Your task to perform on an android device: toggle show notifications on the lock screen Image 0: 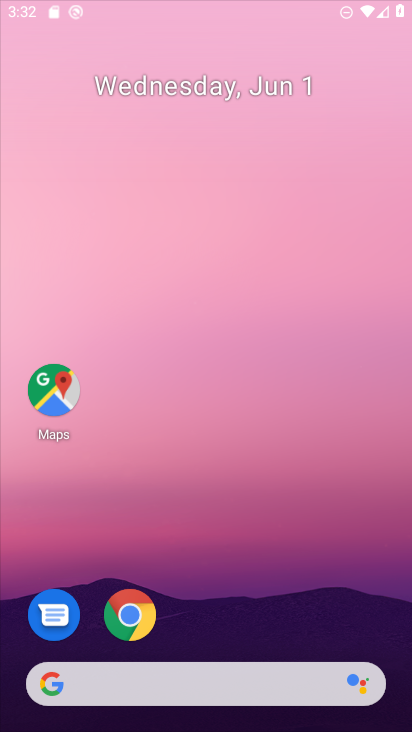
Step 0: press home button
Your task to perform on an android device: toggle show notifications on the lock screen Image 1: 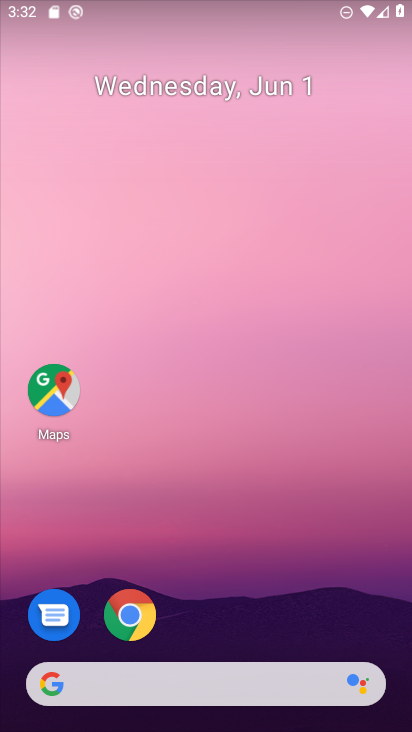
Step 1: drag from (233, 565) to (290, 21)
Your task to perform on an android device: toggle show notifications on the lock screen Image 2: 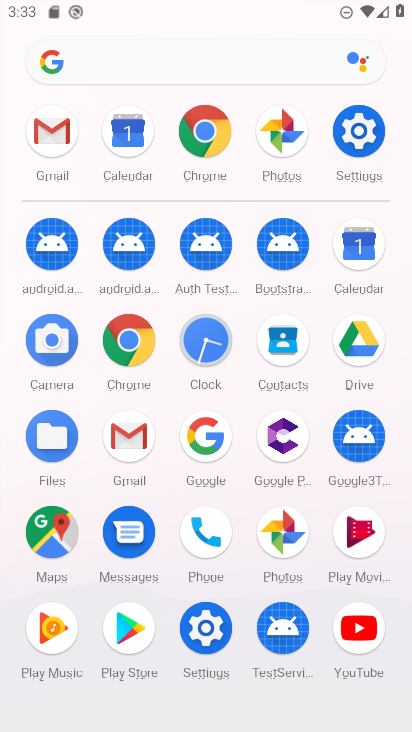
Step 2: click (356, 122)
Your task to perform on an android device: toggle show notifications on the lock screen Image 3: 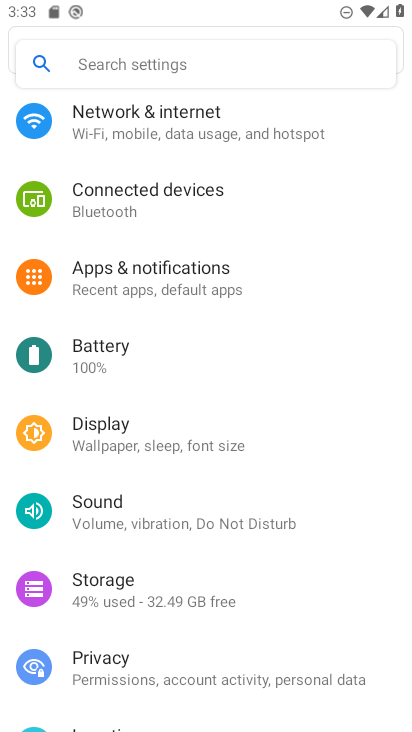
Step 3: click (245, 270)
Your task to perform on an android device: toggle show notifications on the lock screen Image 4: 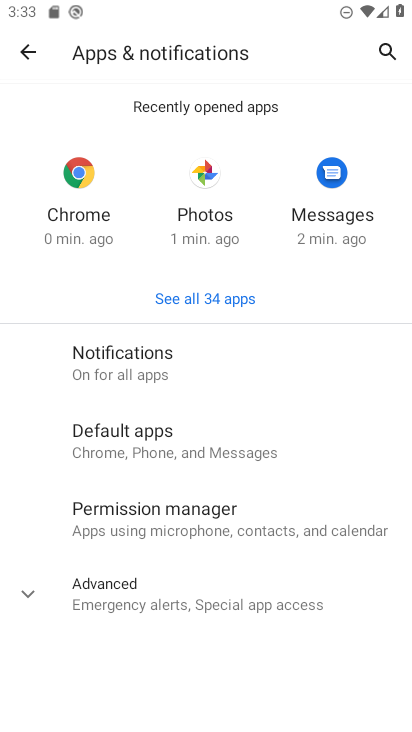
Step 4: click (180, 354)
Your task to perform on an android device: toggle show notifications on the lock screen Image 5: 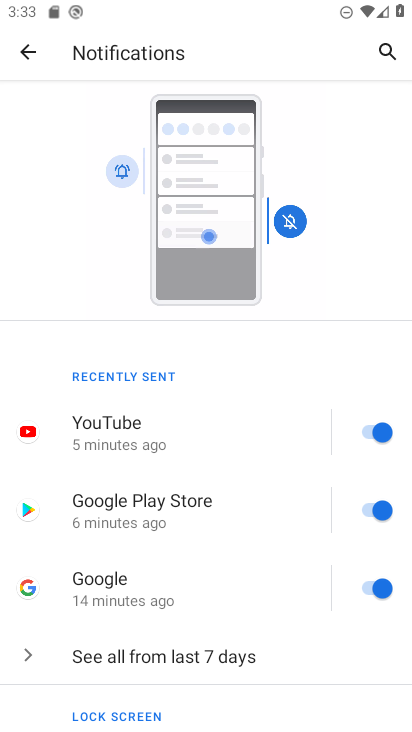
Step 5: drag from (259, 621) to (273, 250)
Your task to perform on an android device: toggle show notifications on the lock screen Image 6: 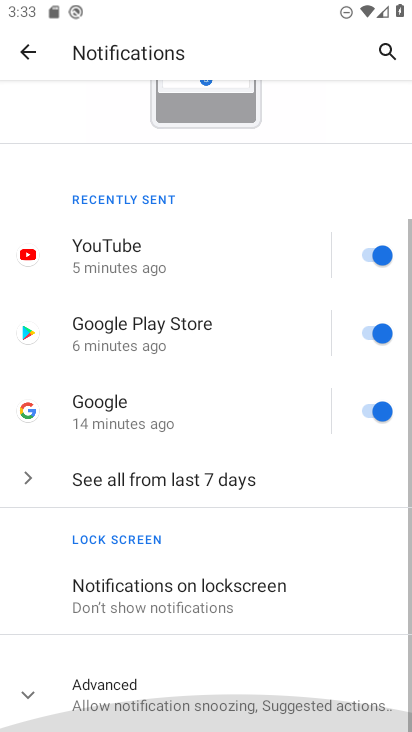
Step 6: click (288, 97)
Your task to perform on an android device: toggle show notifications on the lock screen Image 7: 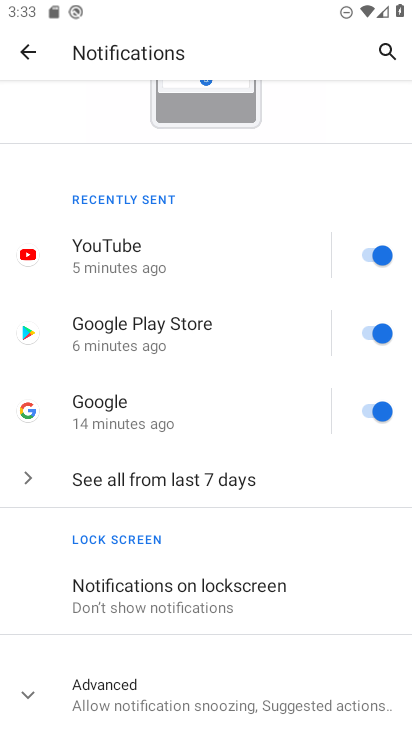
Step 7: click (129, 591)
Your task to perform on an android device: toggle show notifications on the lock screen Image 8: 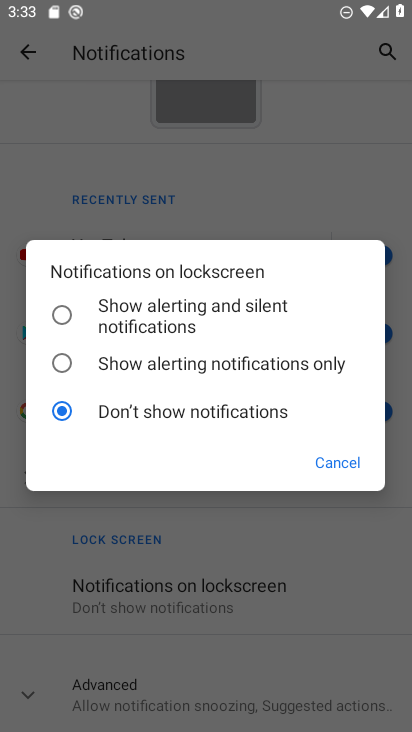
Step 8: click (63, 313)
Your task to perform on an android device: toggle show notifications on the lock screen Image 9: 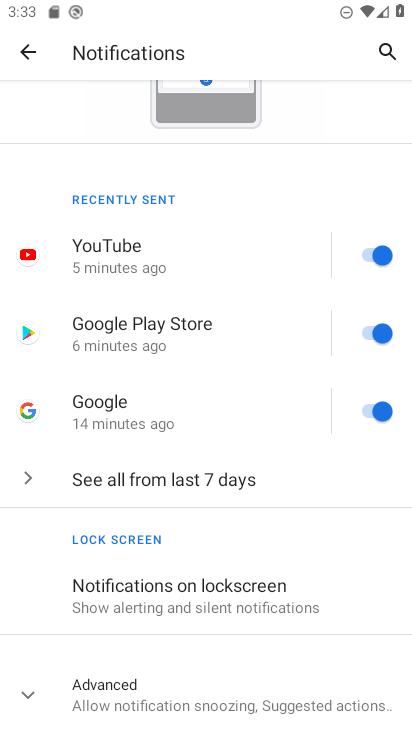
Step 9: task complete